Your task to perform on an android device: View the shopping cart on bestbuy.com. Search for razer thresher on bestbuy.com, select the first entry, and add it to the cart. Image 0: 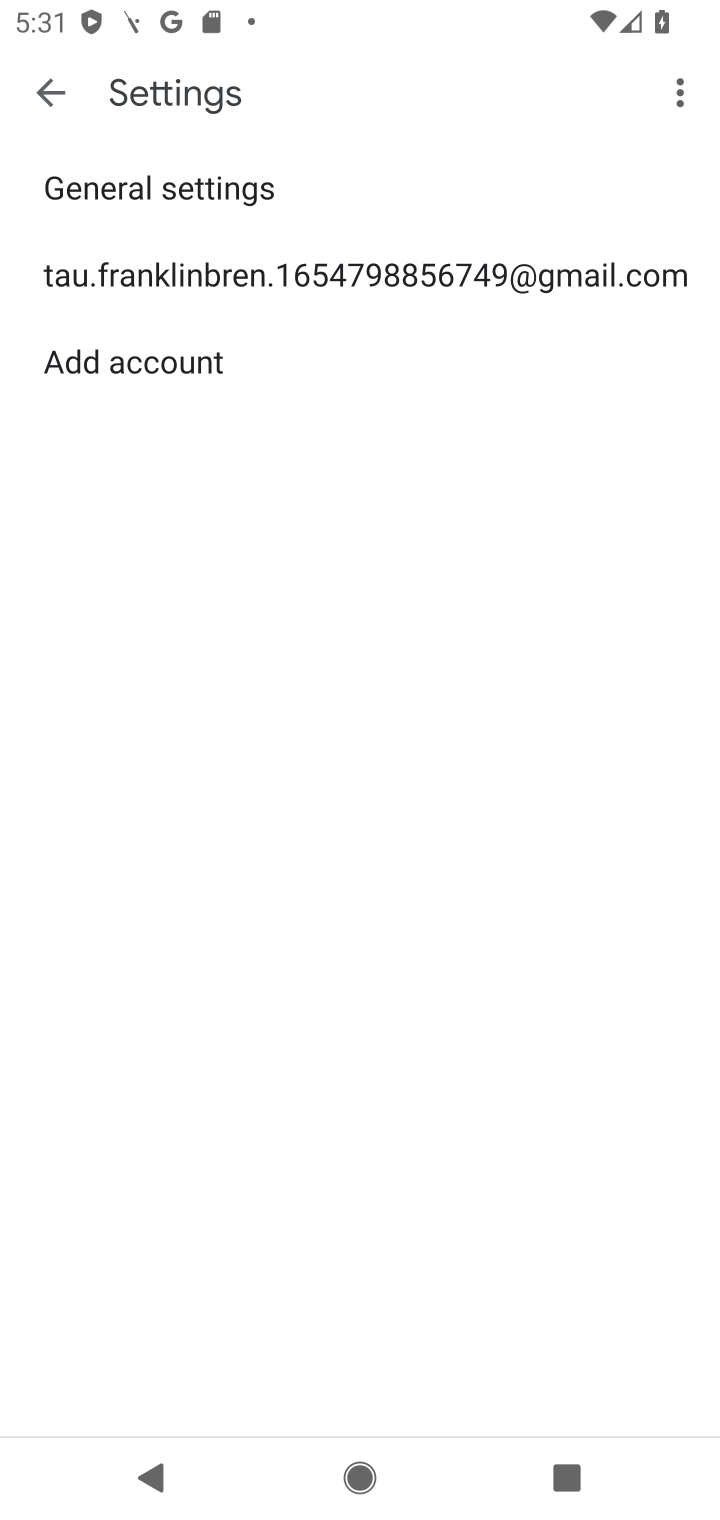
Step 0: press home button
Your task to perform on an android device: View the shopping cart on bestbuy.com. Search for razer thresher on bestbuy.com, select the first entry, and add it to the cart. Image 1: 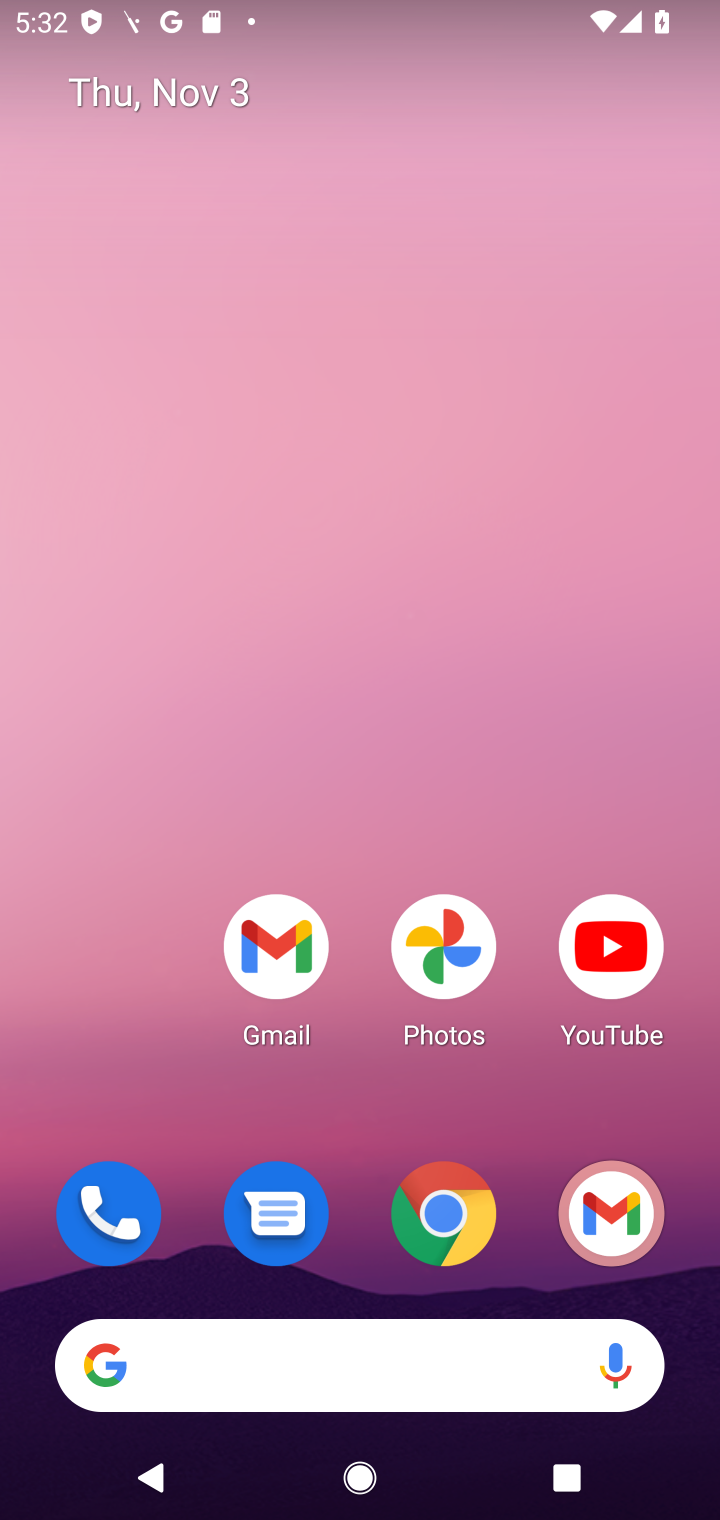
Step 1: click (433, 1222)
Your task to perform on an android device: View the shopping cart on bestbuy.com. Search for razer thresher on bestbuy.com, select the first entry, and add it to the cart. Image 2: 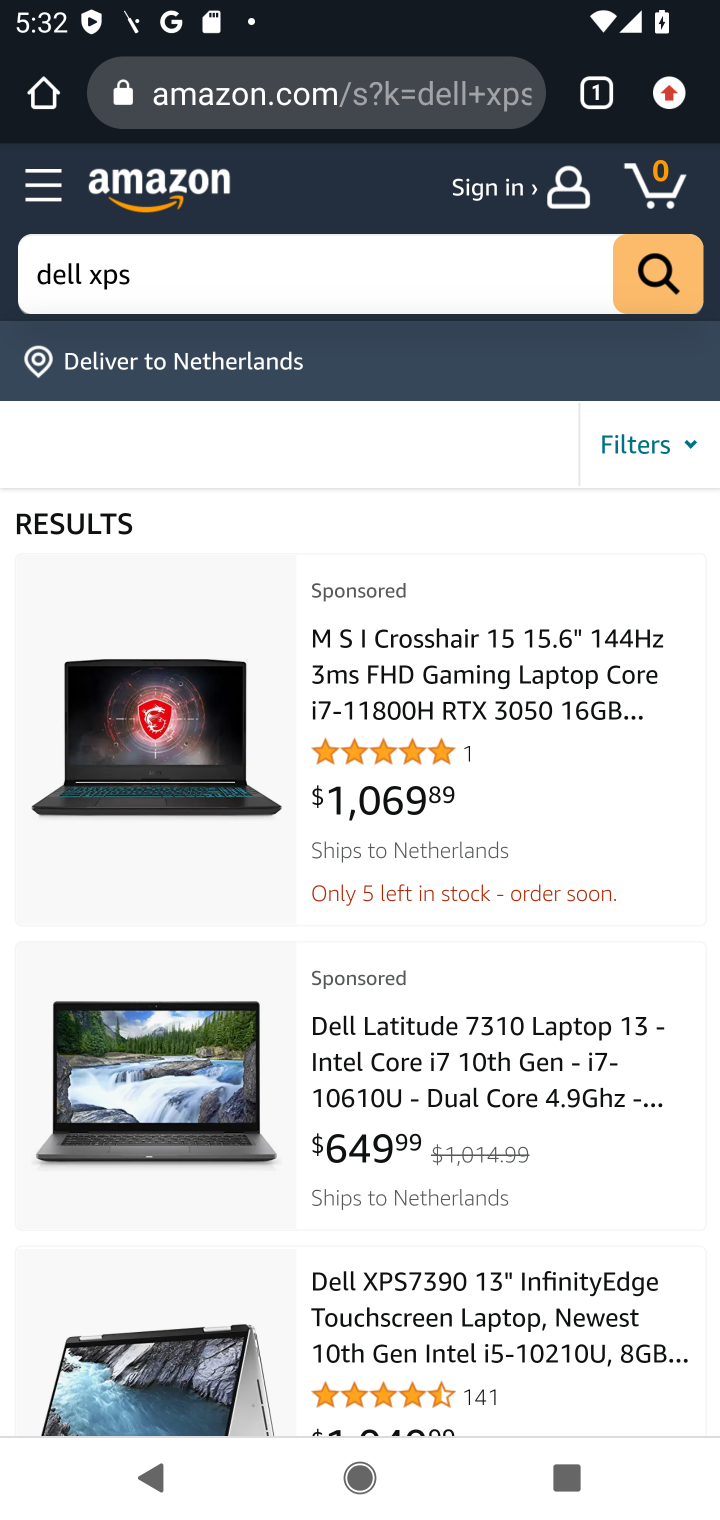
Step 2: click (294, 92)
Your task to perform on an android device: View the shopping cart on bestbuy.com. Search for razer thresher on bestbuy.com, select the first entry, and add it to the cart. Image 3: 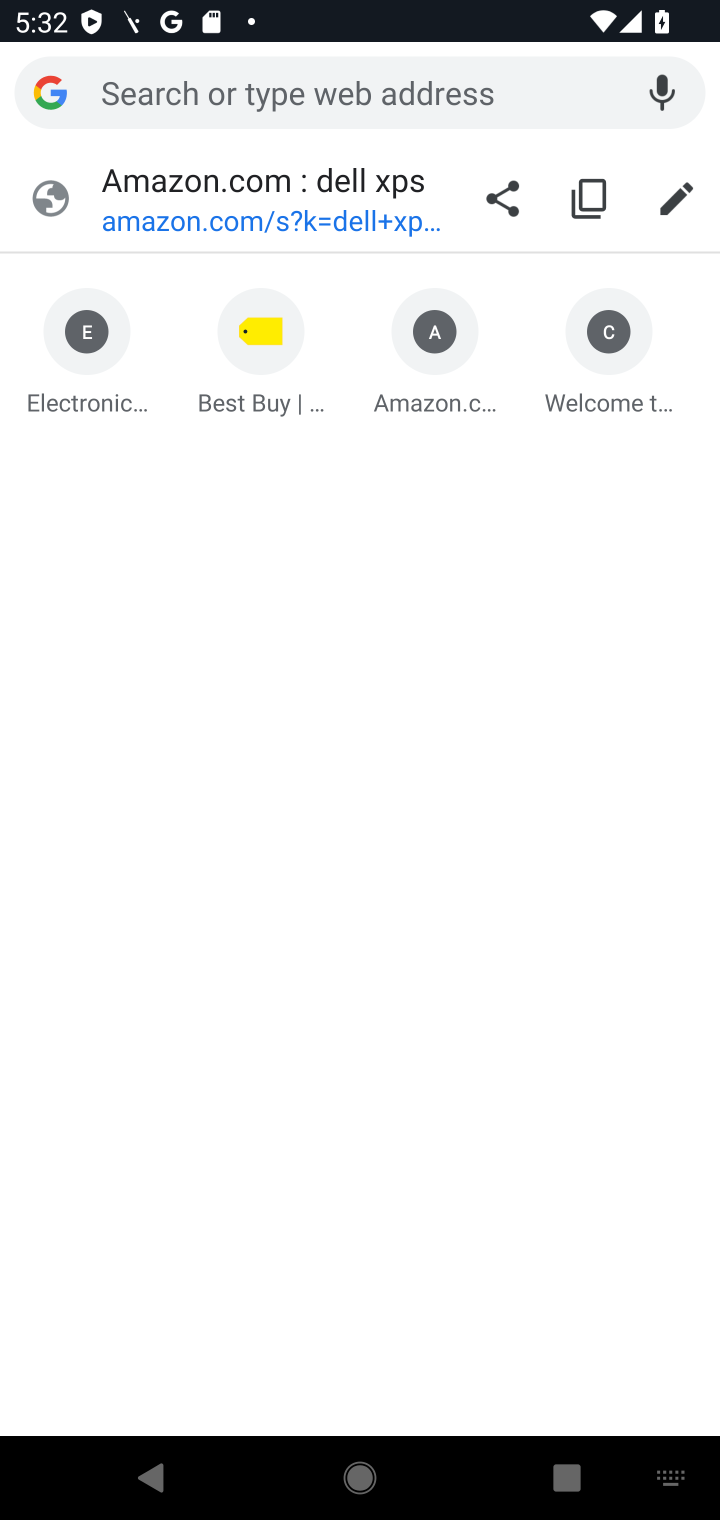
Step 3: type "bestbuy.com"
Your task to perform on an android device: View the shopping cart on bestbuy.com. Search for razer thresher on bestbuy.com, select the first entry, and add it to the cart. Image 4: 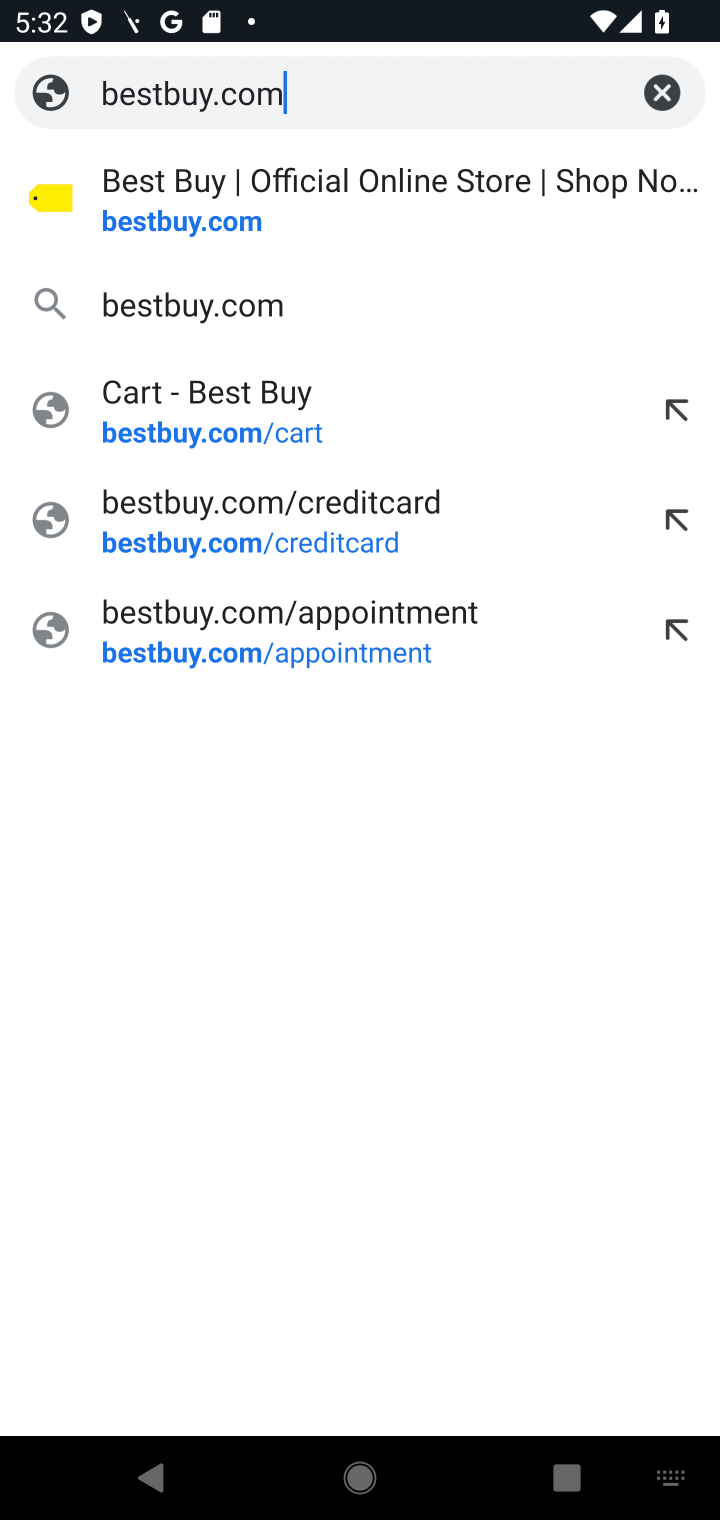
Step 4: click (141, 231)
Your task to perform on an android device: View the shopping cart on bestbuy.com. Search for razer thresher on bestbuy.com, select the first entry, and add it to the cart. Image 5: 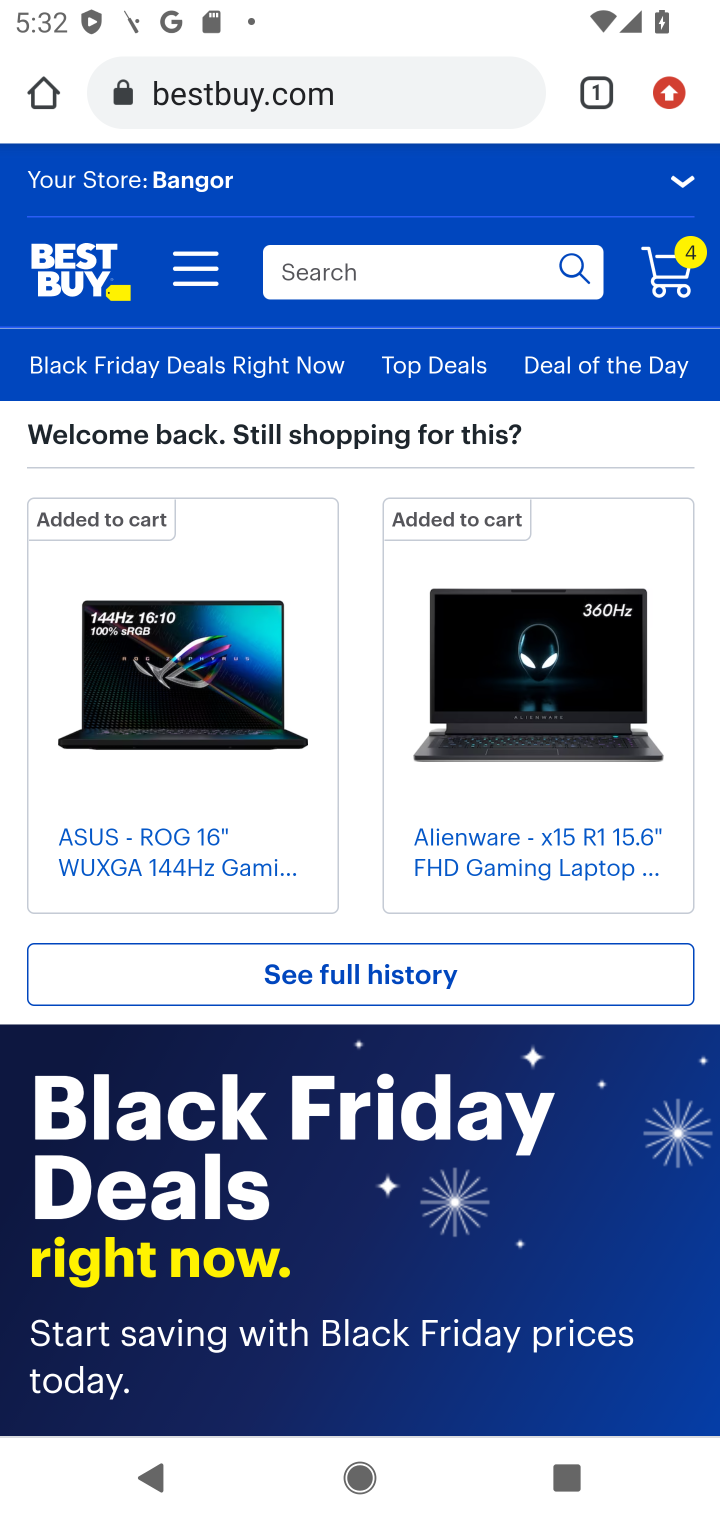
Step 5: click (672, 275)
Your task to perform on an android device: View the shopping cart on bestbuy.com. Search for razer thresher on bestbuy.com, select the first entry, and add it to the cart. Image 6: 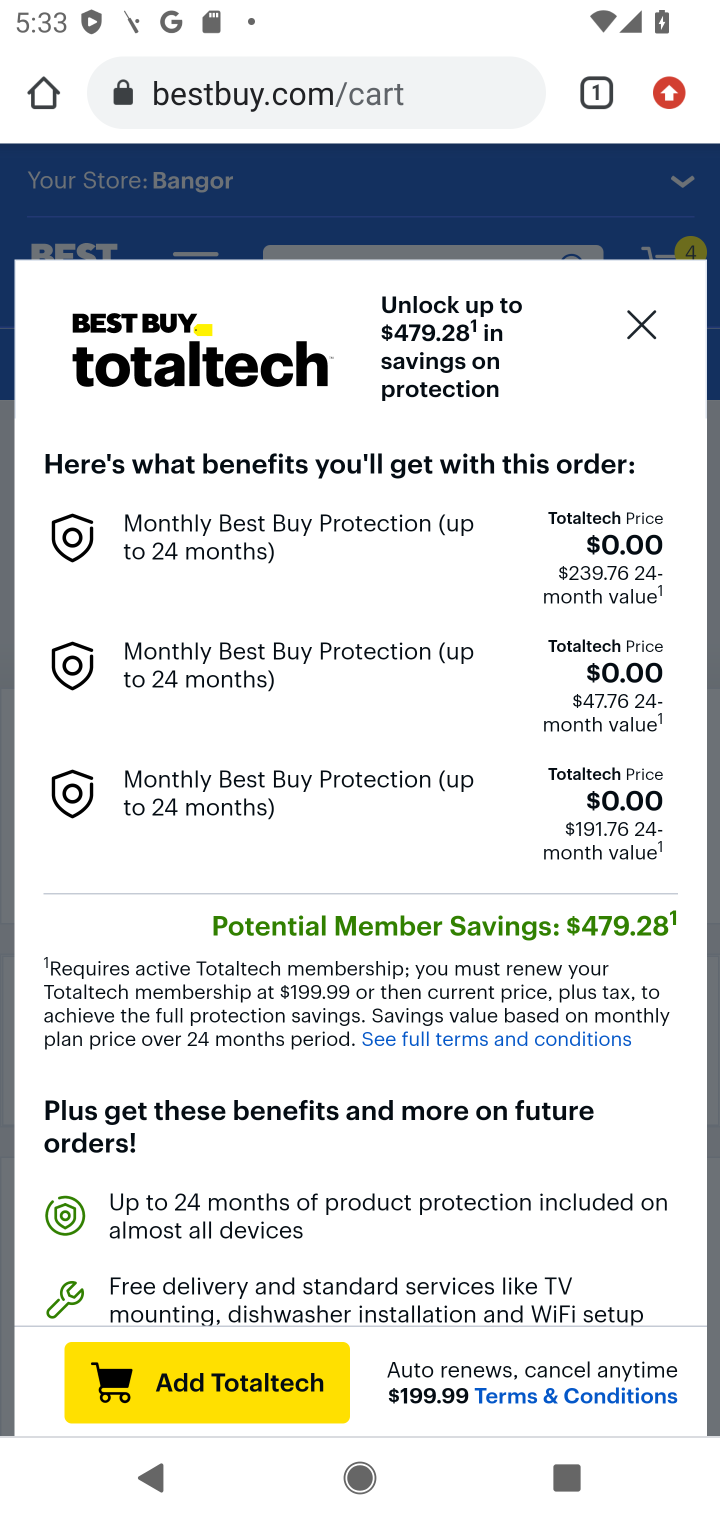
Step 6: click (634, 319)
Your task to perform on an android device: View the shopping cart on bestbuy.com. Search for razer thresher on bestbuy.com, select the first entry, and add it to the cart. Image 7: 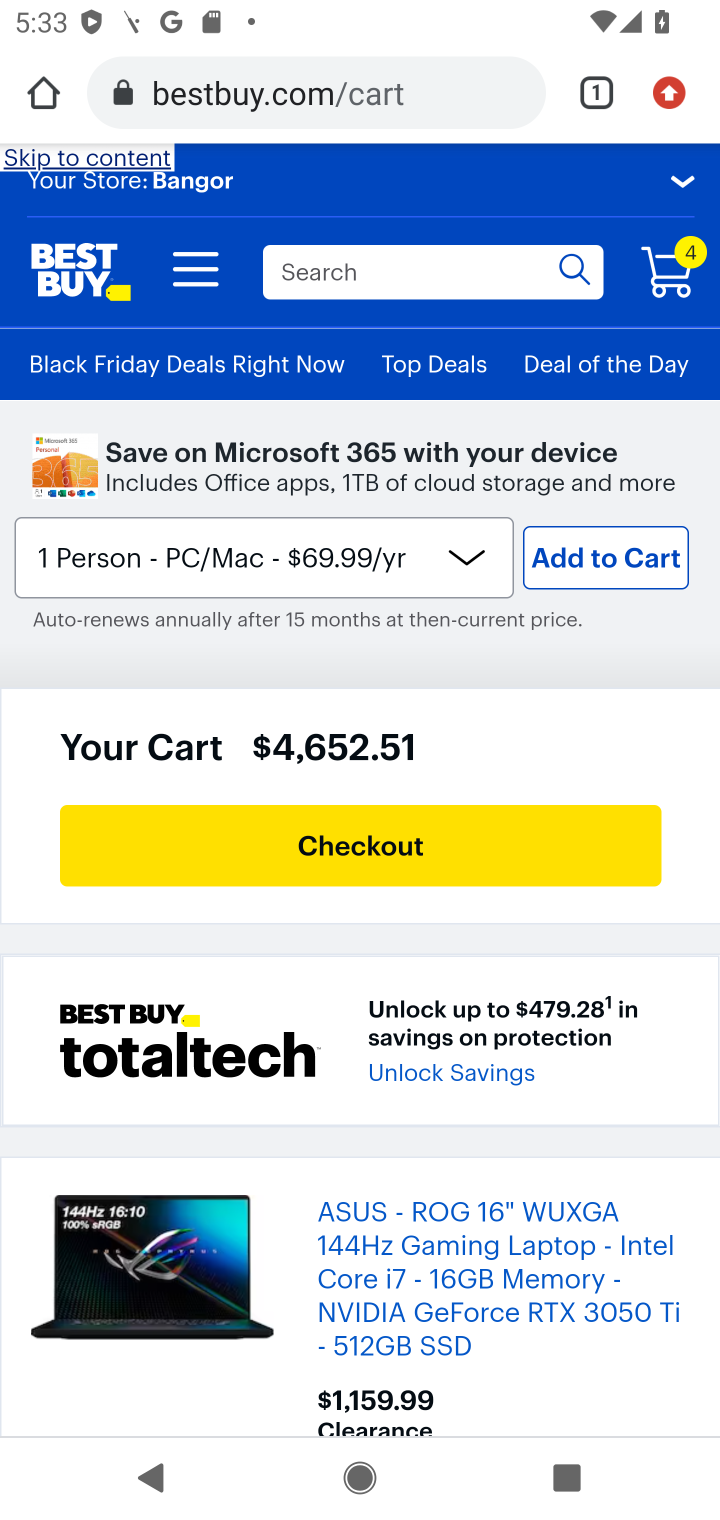
Step 7: click (360, 269)
Your task to perform on an android device: View the shopping cart on bestbuy.com. Search for razer thresher on bestbuy.com, select the first entry, and add it to the cart. Image 8: 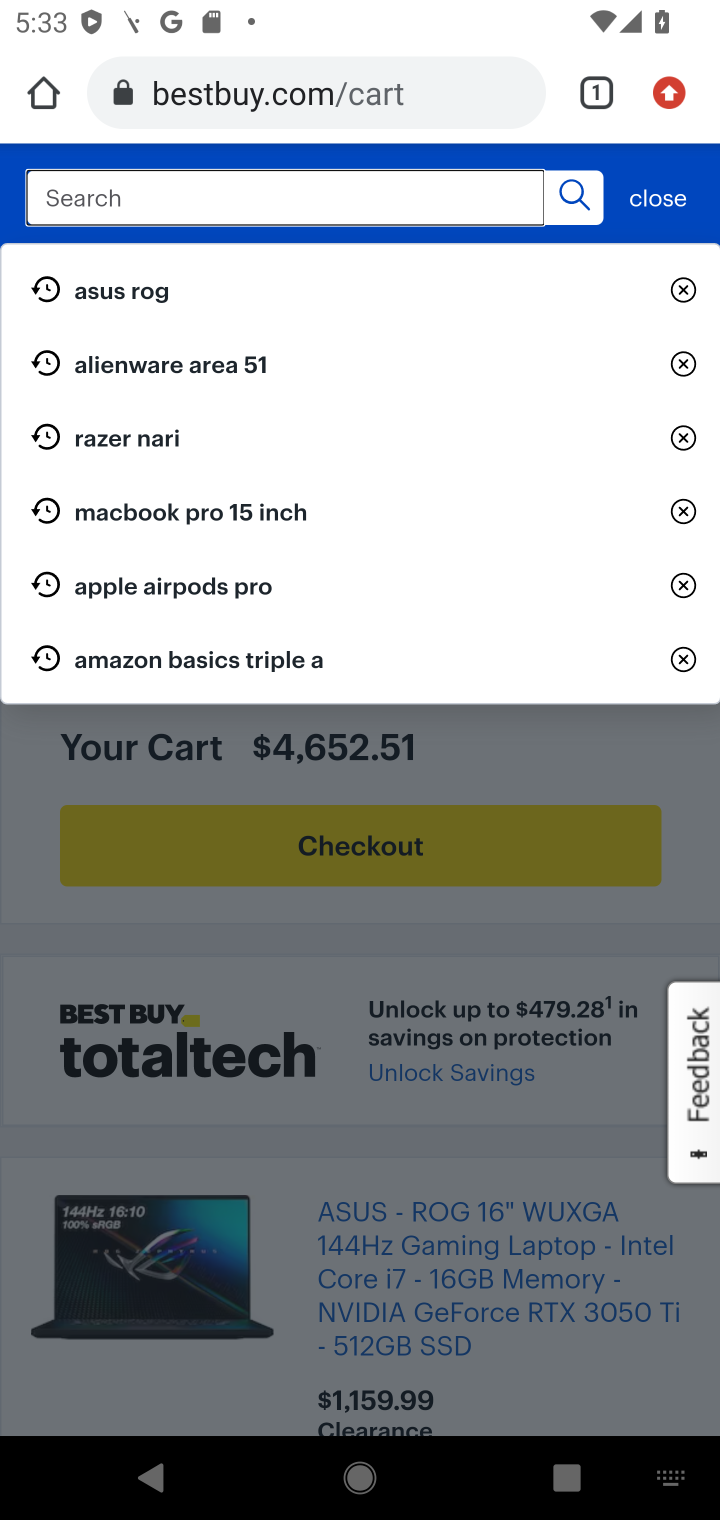
Step 8: type "razer thresher"
Your task to perform on an android device: View the shopping cart on bestbuy.com. Search for razer thresher on bestbuy.com, select the first entry, and add it to the cart. Image 9: 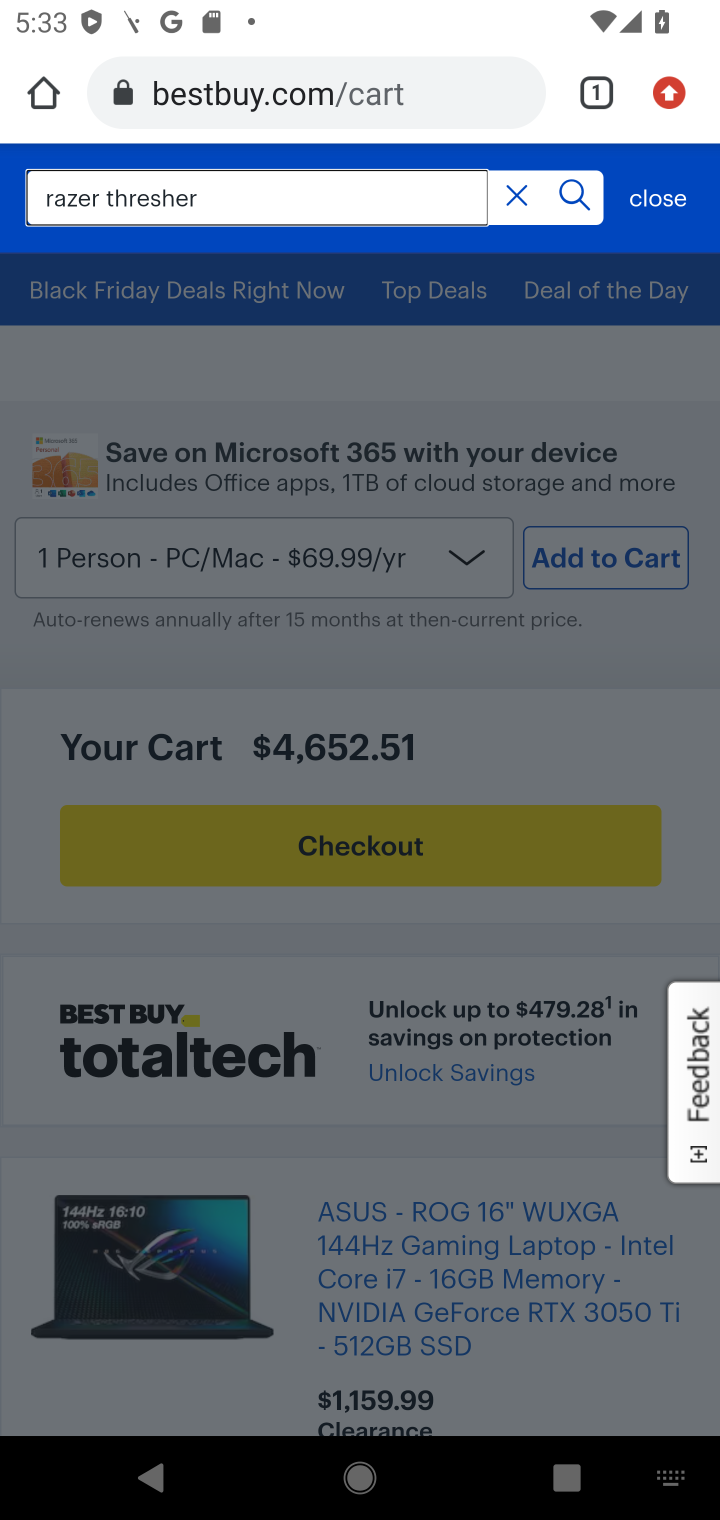
Step 9: click (574, 205)
Your task to perform on an android device: View the shopping cart on bestbuy.com. Search for razer thresher on bestbuy.com, select the first entry, and add it to the cart. Image 10: 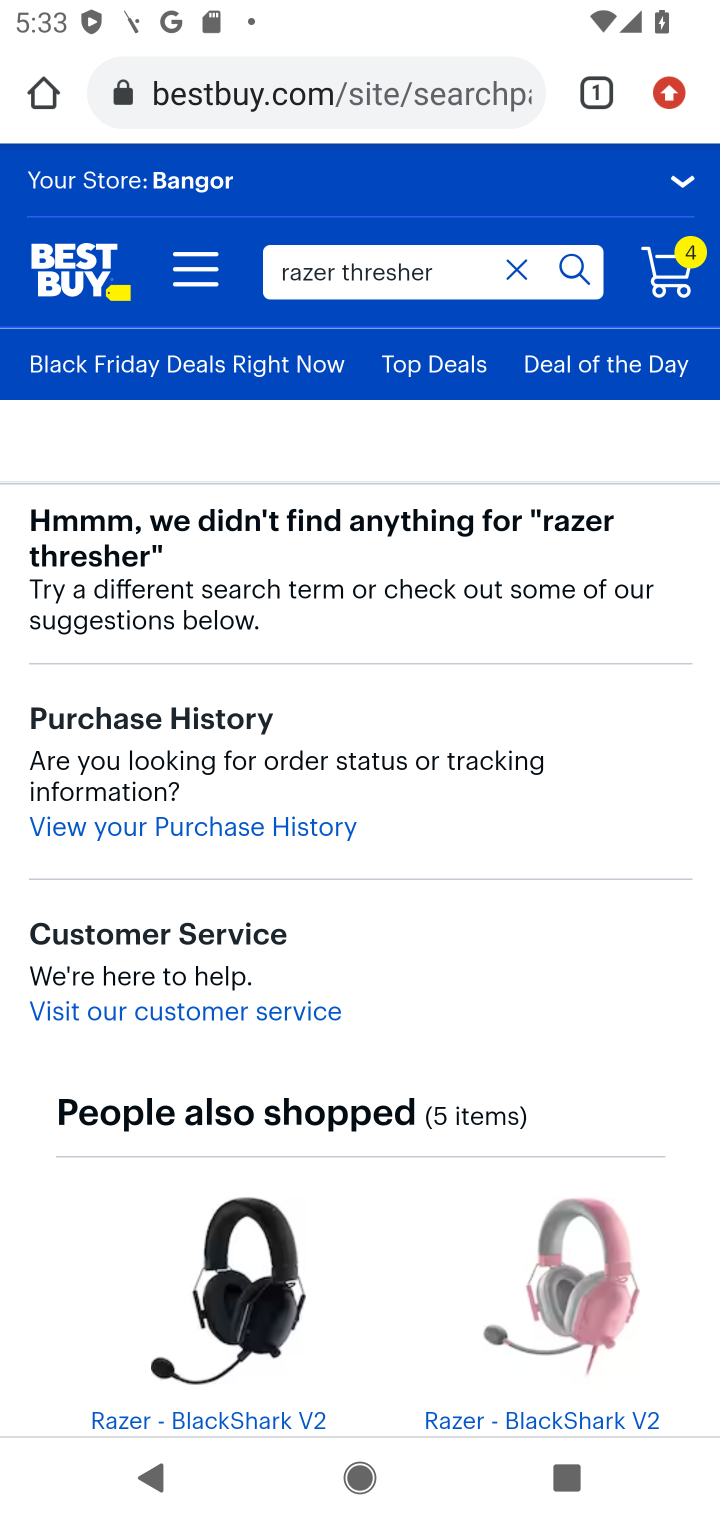
Step 10: task complete